Your task to perform on an android device: turn notification dots on Image 0: 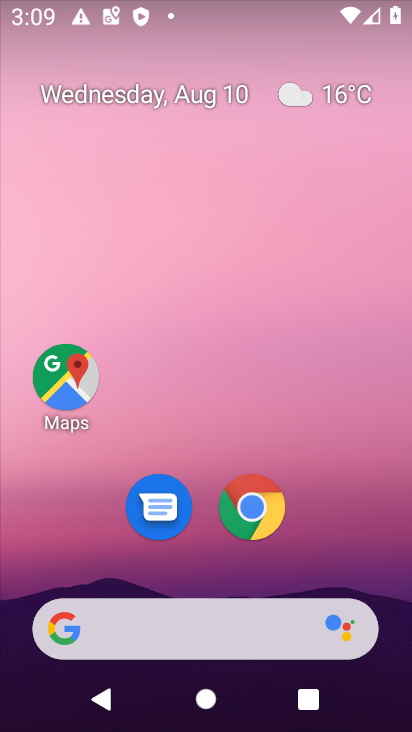
Step 0: drag from (336, 541) to (256, 46)
Your task to perform on an android device: turn notification dots on Image 1: 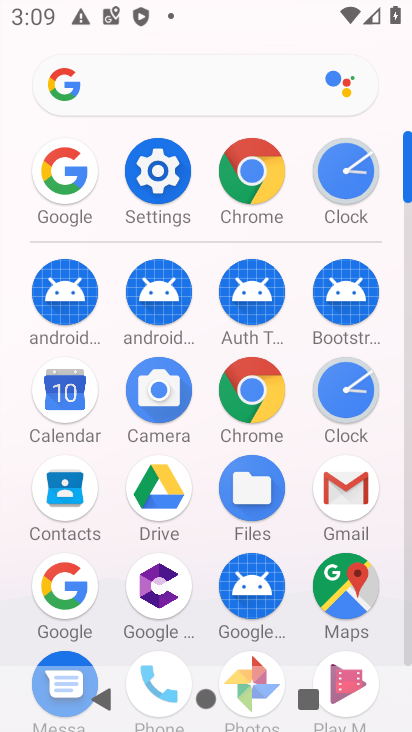
Step 1: click (152, 164)
Your task to perform on an android device: turn notification dots on Image 2: 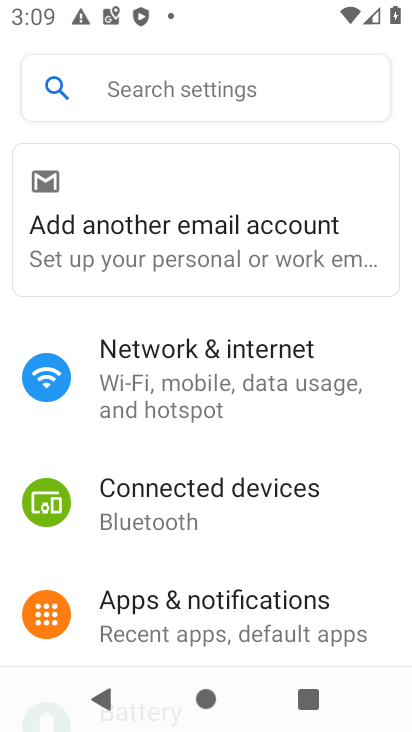
Step 2: drag from (231, 568) to (281, 202)
Your task to perform on an android device: turn notification dots on Image 3: 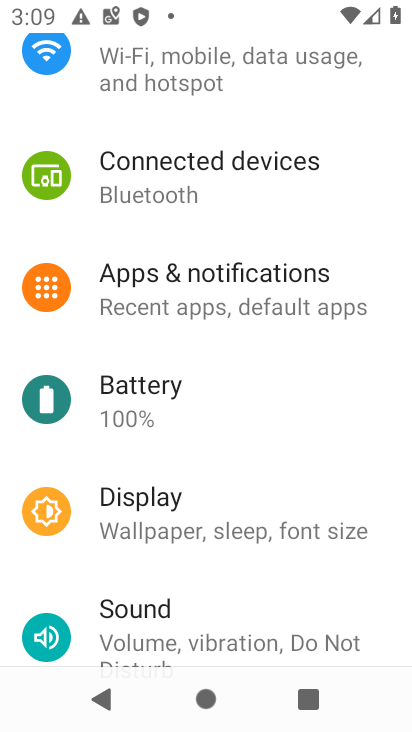
Step 3: click (236, 289)
Your task to perform on an android device: turn notification dots on Image 4: 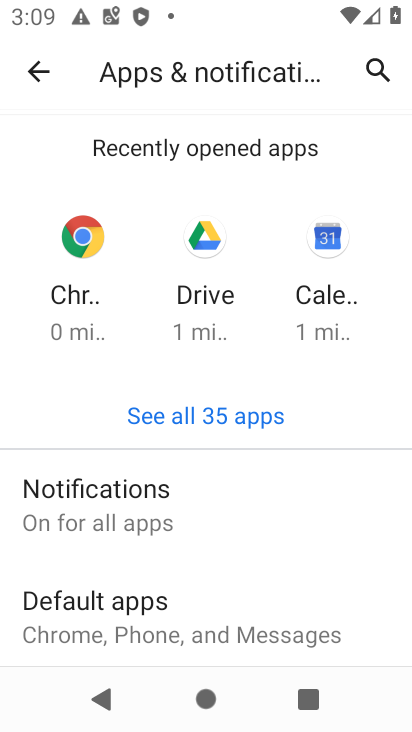
Step 4: drag from (283, 555) to (274, 170)
Your task to perform on an android device: turn notification dots on Image 5: 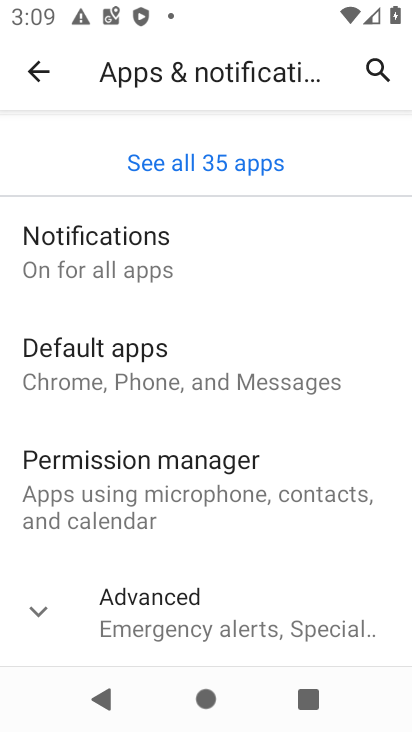
Step 5: click (158, 267)
Your task to perform on an android device: turn notification dots on Image 6: 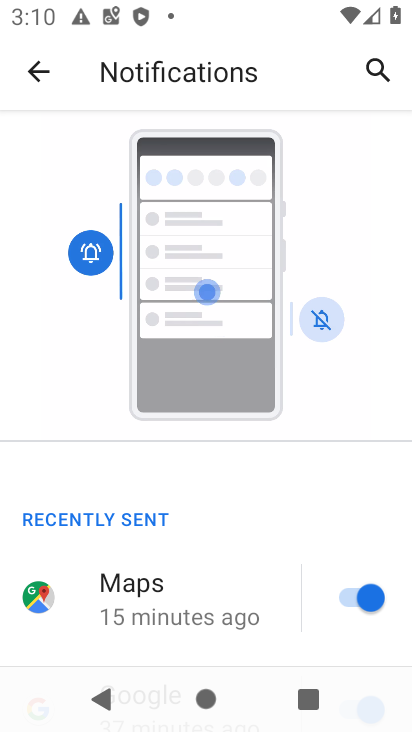
Step 6: drag from (214, 506) to (208, 94)
Your task to perform on an android device: turn notification dots on Image 7: 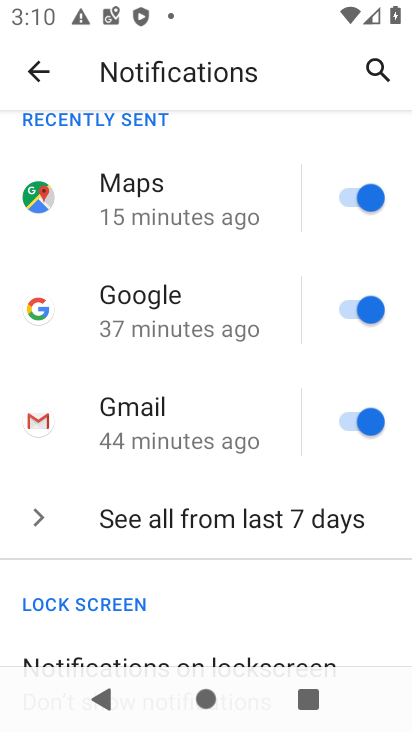
Step 7: drag from (230, 611) to (208, 148)
Your task to perform on an android device: turn notification dots on Image 8: 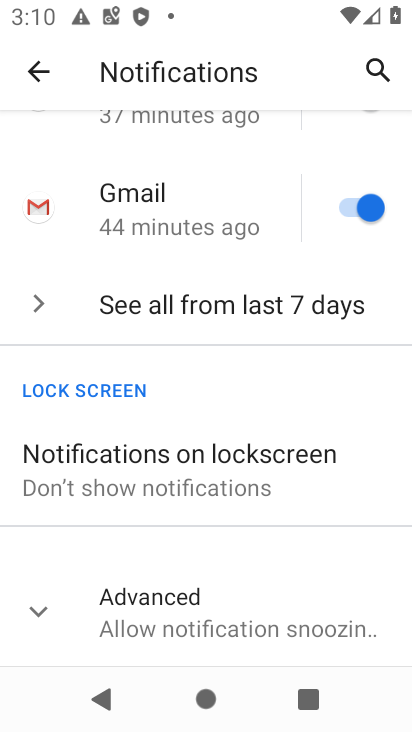
Step 8: click (179, 592)
Your task to perform on an android device: turn notification dots on Image 9: 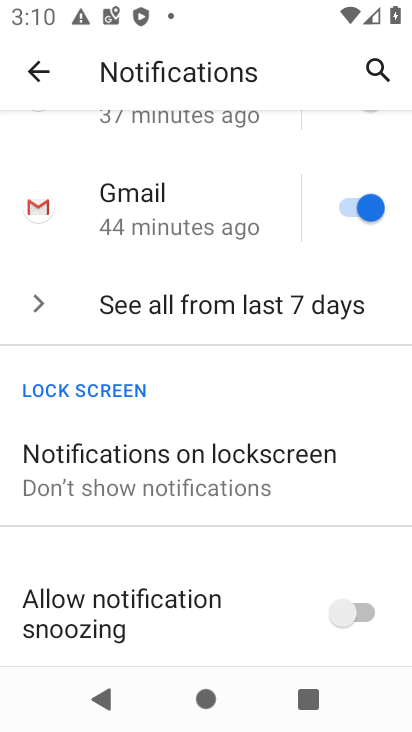
Step 9: task complete